Your task to perform on an android device: Search for Italian restaurants on Maps Image 0: 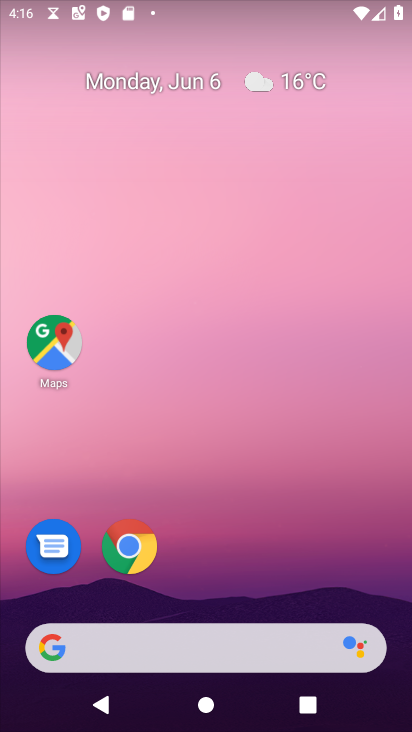
Step 0: drag from (269, 486) to (369, 20)
Your task to perform on an android device: Search for Italian restaurants on Maps Image 1: 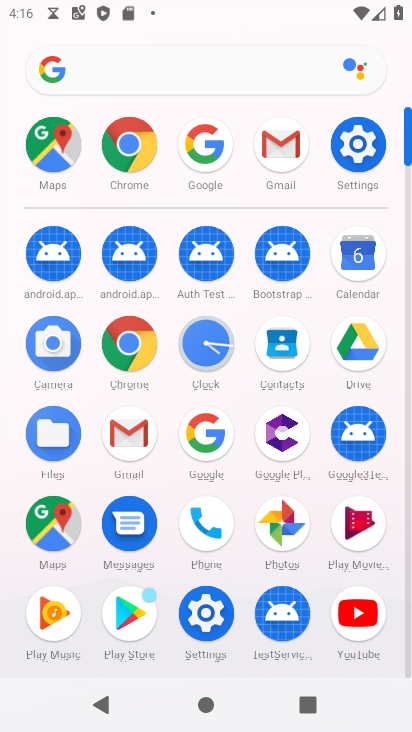
Step 1: click (47, 528)
Your task to perform on an android device: Search for Italian restaurants on Maps Image 2: 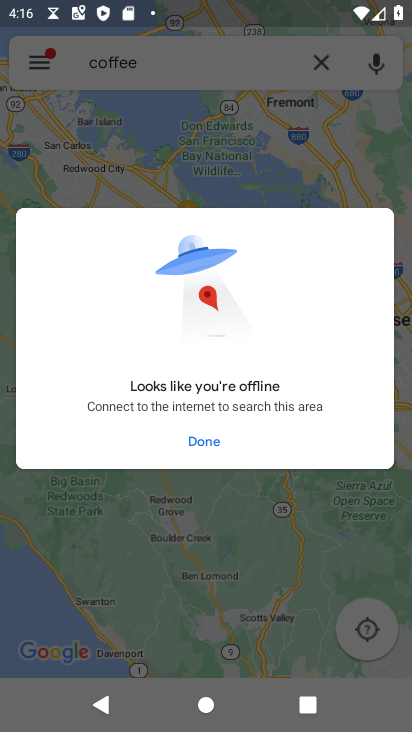
Step 2: click (199, 441)
Your task to perform on an android device: Search for Italian restaurants on Maps Image 3: 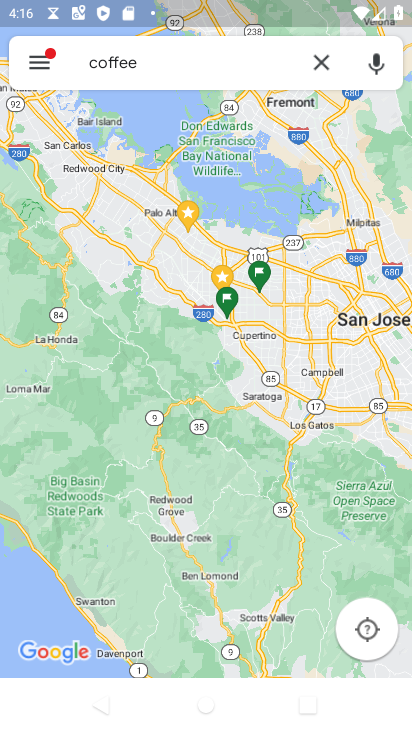
Step 3: click (321, 63)
Your task to perform on an android device: Search for Italian restaurants on Maps Image 4: 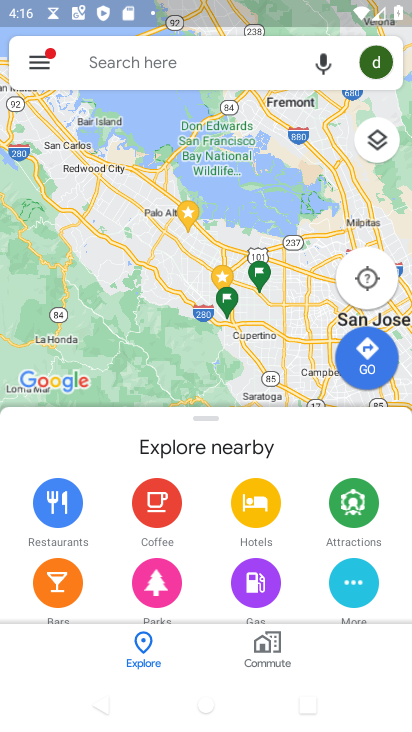
Step 4: click (155, 82)
Your task to perform on an android device: Search for Italian restaurants on Maps Image 5: 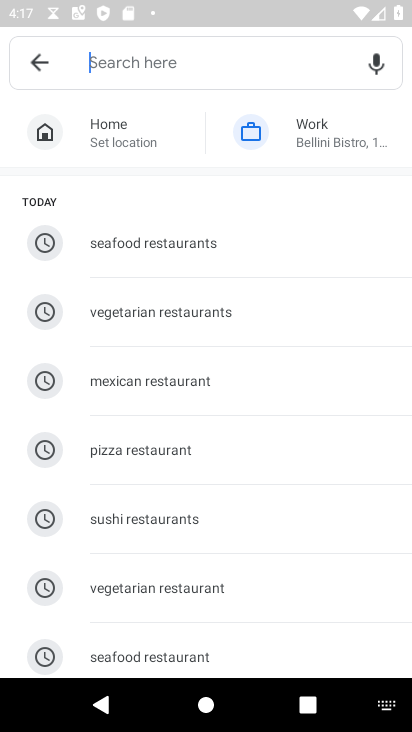
Step 5: type "italian resturents"
Your task to perform on an android device: Search for Italian restaurants on Maps Image 6: 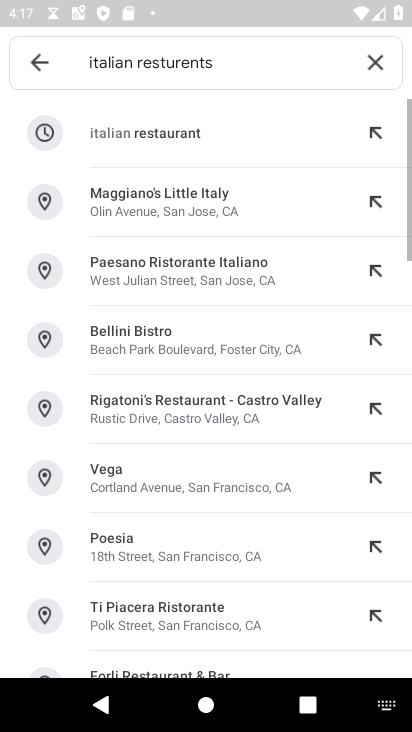
Step 6: click (171, 121)
Your task to perform on an android device: Search for Italian restaurants on Maps Image 7: 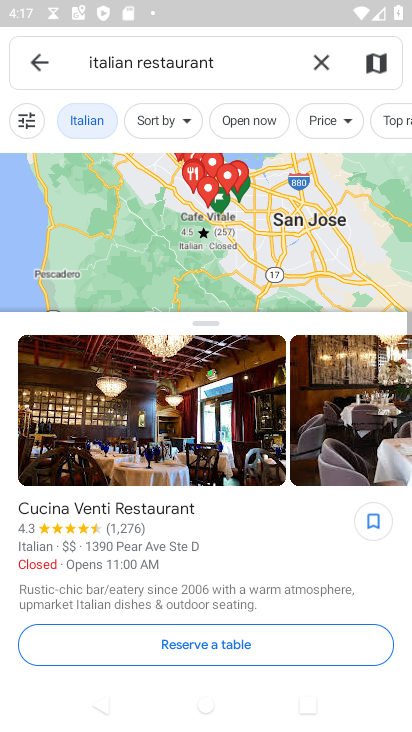
Step 7: task complete